Your task to perform on an android device: turn on sleep mode Image 0: 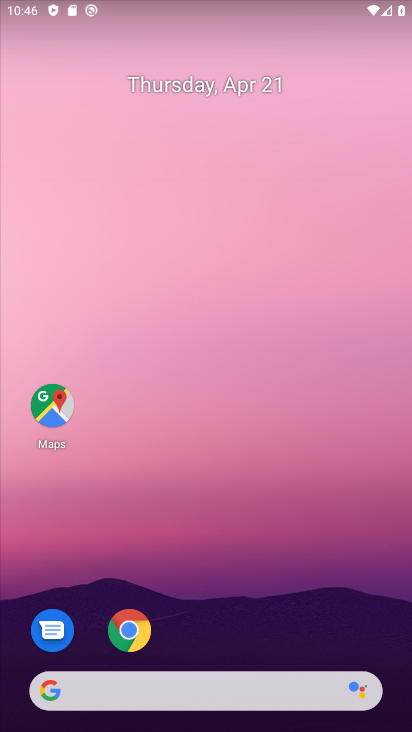
Step 0: drag from (317, 588) to (323, 43)
Your task to perform on an android device: turn on sleep mode Image 1: 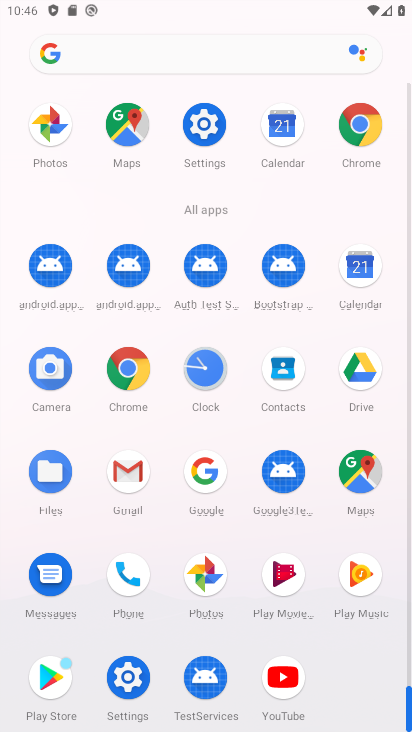
Step 1: click (202, 121)
Your task to perform on an android device: turn on sleep mode Image 2: 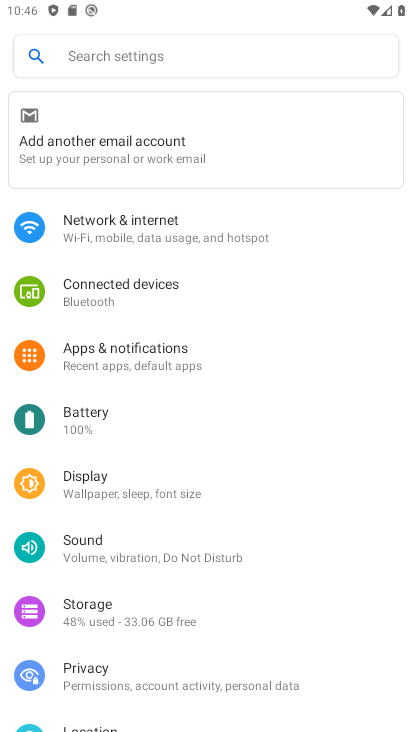
Step 2: drag from (321, 586) to (367, 266)
Your task to perform on an android device: turn on sleep mode Image 3: 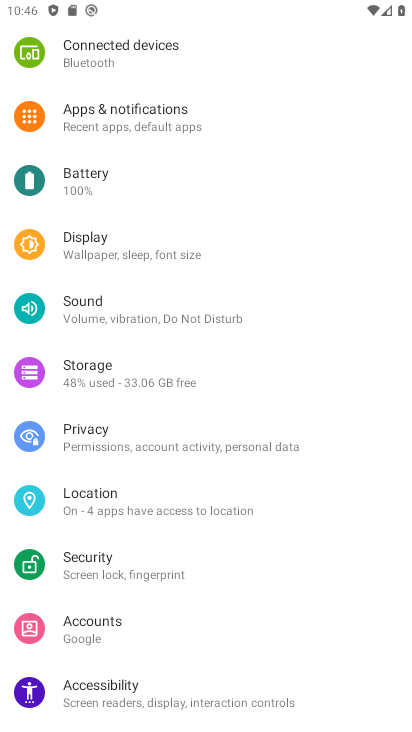
Step 3: click (82, 248)
Your task to perform on an android device: turn on sleep mode Image 4: 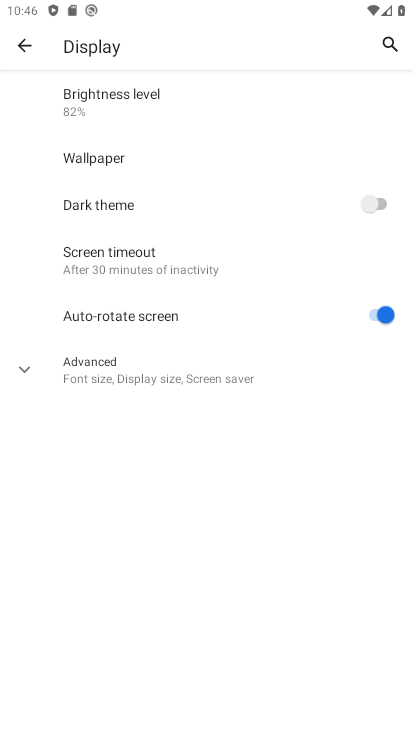
Step 4: click (141, 250)
Your task to perform on an android device: turn on sleep mode Image 5: 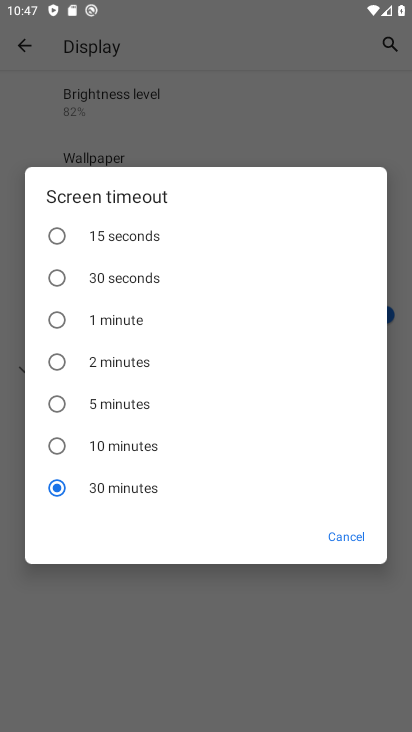
Step 5: task complete